Your task to perform on an android device: remove spam from my inbox in the gmail app Image 0: 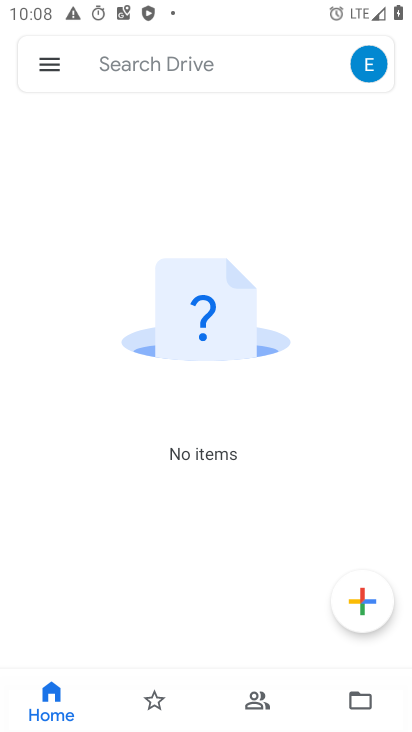
Step 0: press back button
Your task to perform on an android device: remove spam from my inbox in the gmail app Image 1: 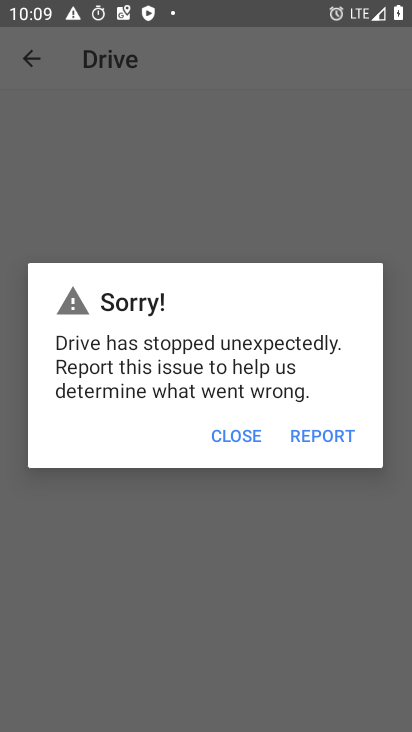
Step 1: press home button
Your task to perform on an android device: remove spam from my inbox in the gmail app Image 2: 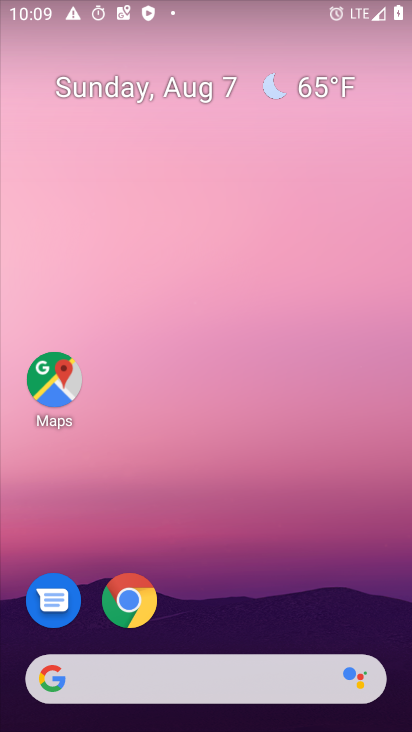
Step 2: drag from (200, 545) to (230, 91)
Your task to perform on an android device: remove spam from my inbox in the gmail app Image 3: 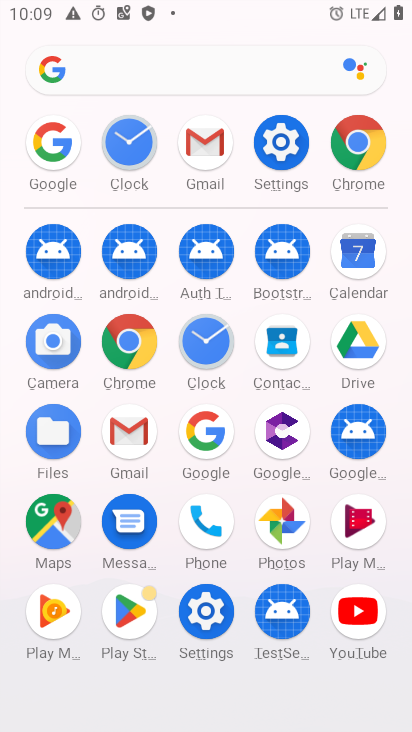
Step 3: click (131, 430)
Your task to perform on an android device: remove spam from my inbox in the gmail app Image 4: 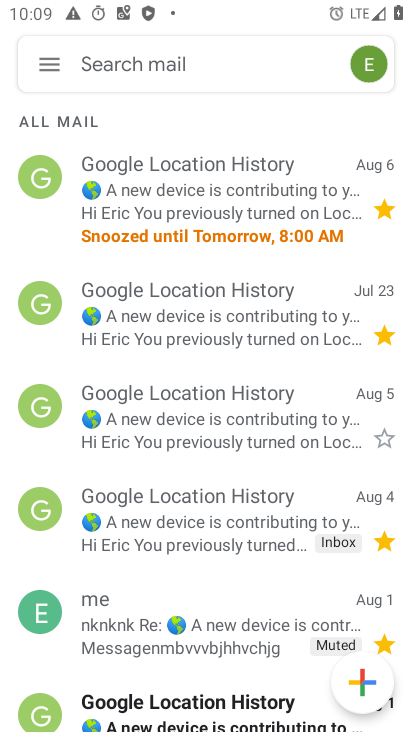
Step 4: click (48, 71)
Your task to perform on an android device: remove spam from my inbox in the gmail app Image 5: 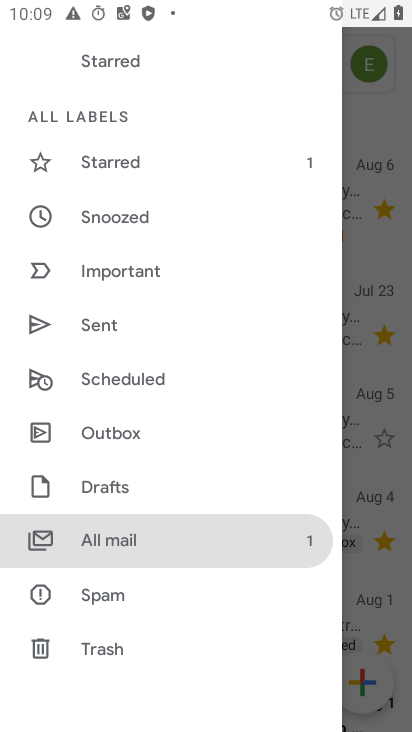
Step 5: click (88, 606)
Your task to perform on an android device: remove spam from my inbox in the gmail app Image 6: 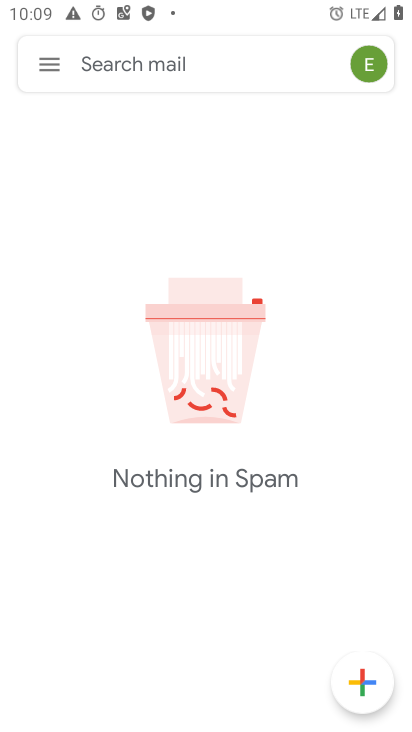
Step 6: task complete